Your task to perform on an android device: turn on bluetooth scan Image 0: 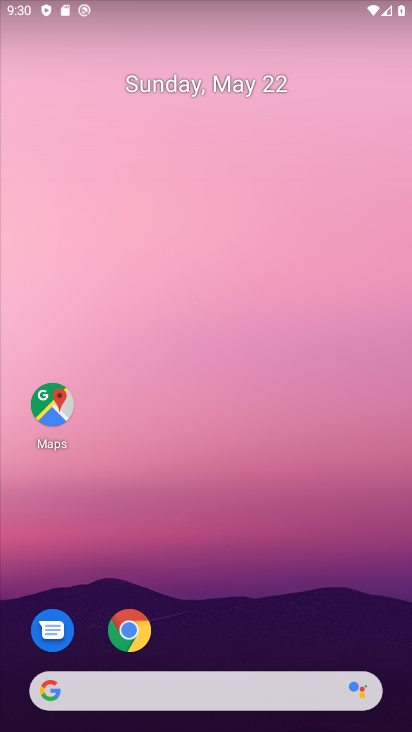
Step 0: drag from (393, 589) to (350, 225)
Your task to perform on an android device: turn on bluetooth scan Image 1: 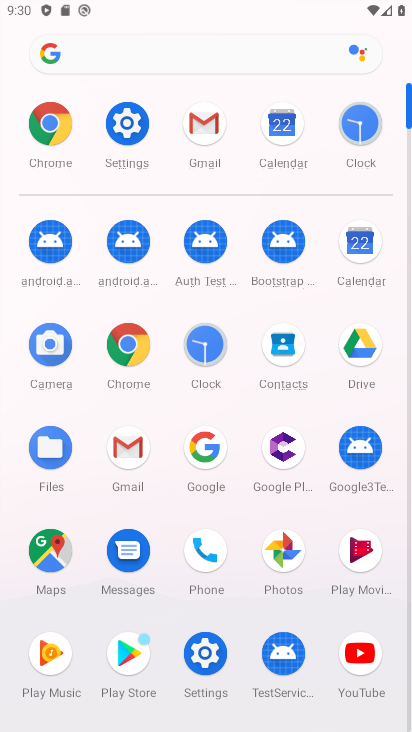
Step 1: click (134, 128)
Your task to perform on an android device: turn on bluetooth scan Image 2: 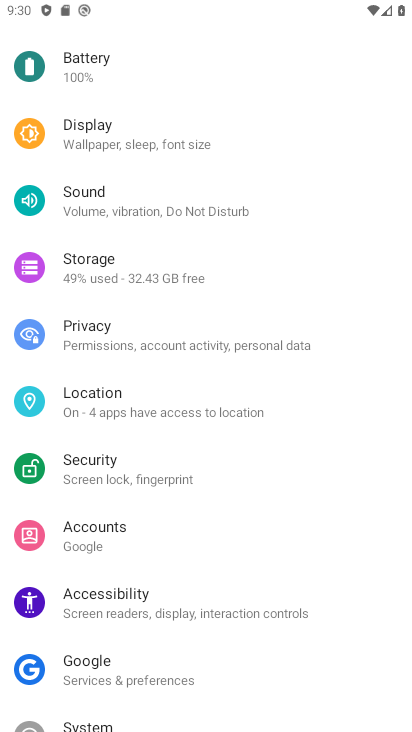
Step 2: drag from (326, 691) to (296, 383)
Your task to perform on an android device: turn on bluetooth scan Image 3: 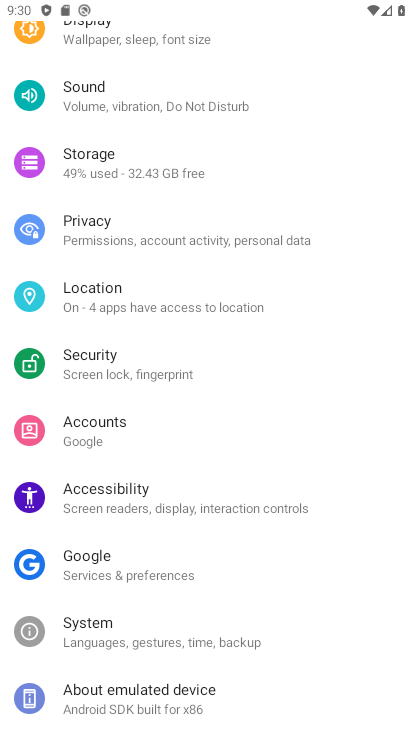
Step 3: click (106, 280)
Your task to perform on an android device: turn on bluetooth scan Image 4: 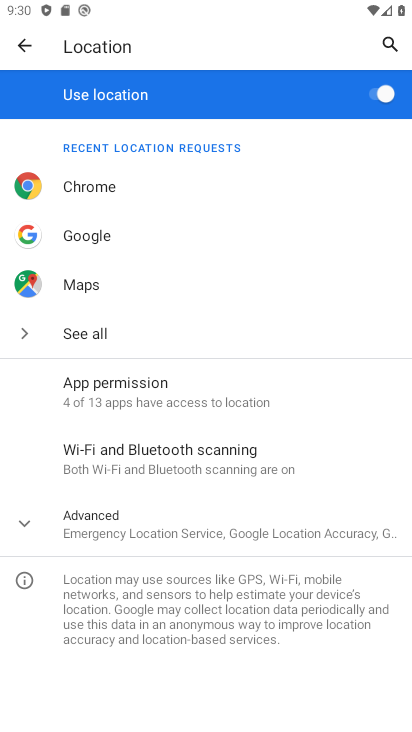
Step 4: click (120, 466)
Your task to perform on an android device: turn on bluetooth scan Image 5: 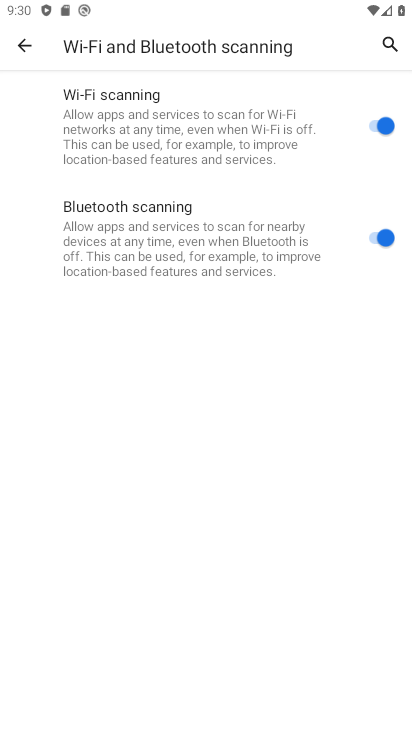
Step 5: task complete